Your task to perform on an android device: turn notification dots off Image 0: 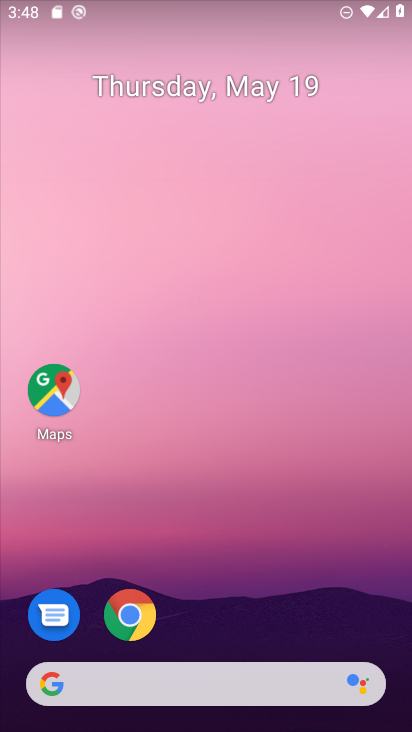
Step 0: drag from (244, 639) to (201, 278)
Your task to perform on an android device: turn notification dots off Image 1: 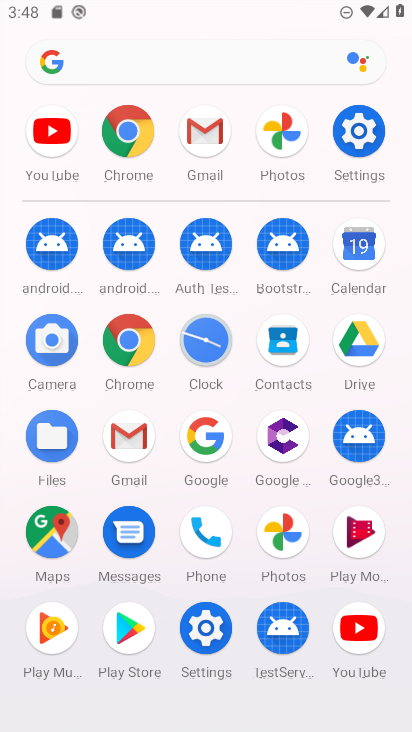
Step 1: click (369, 112)
Your task to perform on an android device: turn notification dots off Image 2: 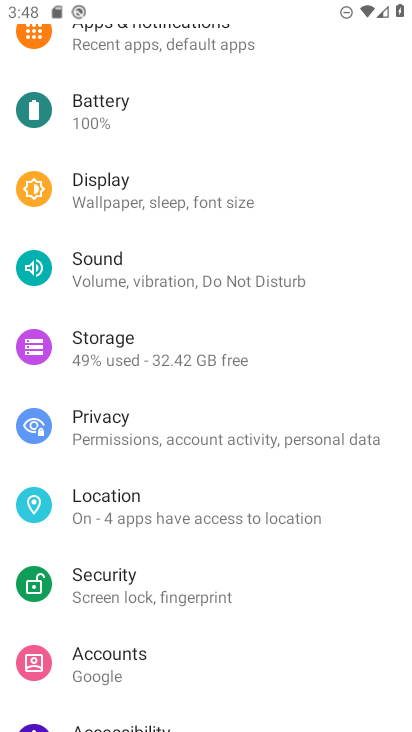
Step 2: drag from (223, 698) to (175, 721)
Your task to perform on an android device: turn notification dots off Image 3: 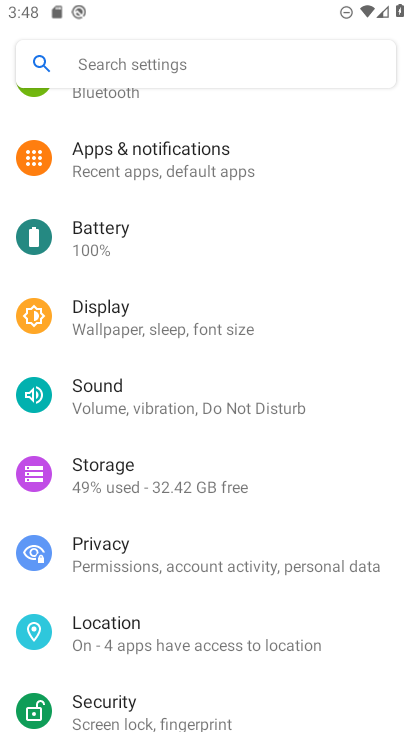
Step 3: click (181, 154)
Your task to perform on an android device: turn notification dots off Image 4: 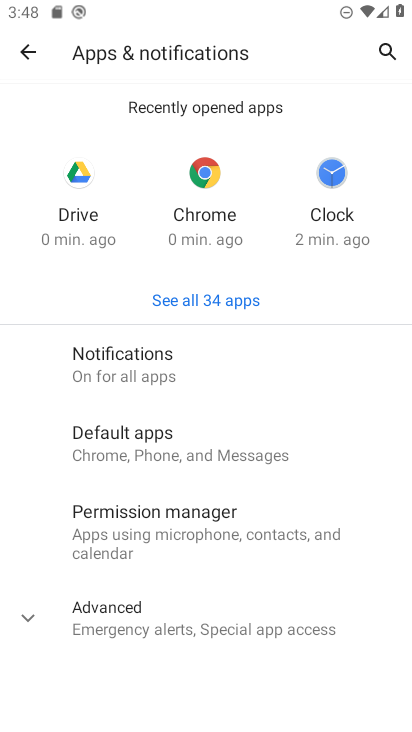
Step 4: click (230, 361)
Your task to perform on an android device: turn notification dots off Image 5: 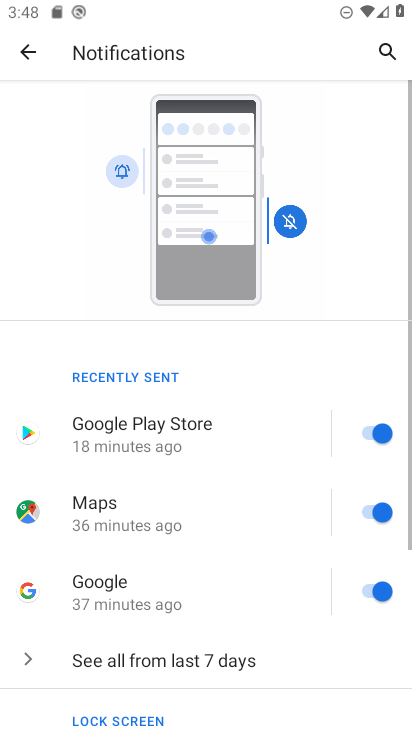
Step 5: drag from (289, 729) to (203, 145)
Your task to perform on an android device: turn notification dots off Image 6: 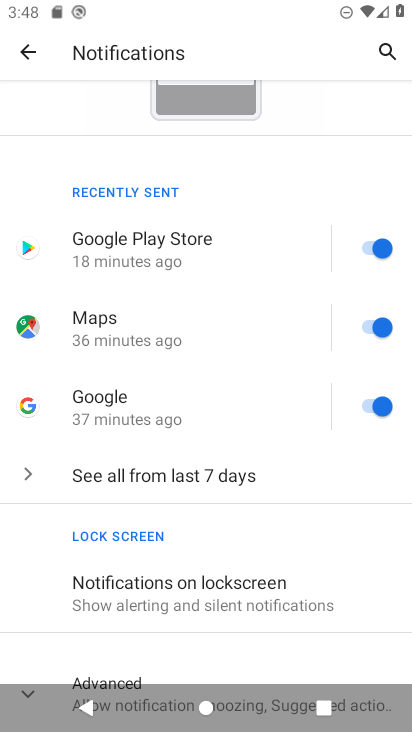
Step 6: drag from (251, 621) to (234, 217)
Your task to perform on an android device: turn notification dots off Image 7: 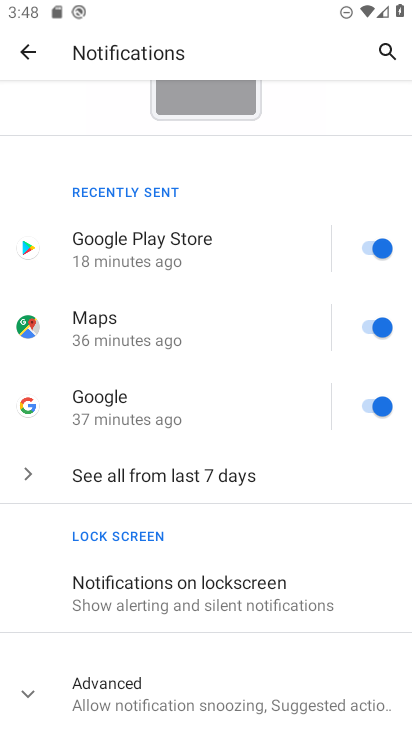
Step 7: click (226, 671)
Your task to perform on an android device: turn notification dots off Image 8: 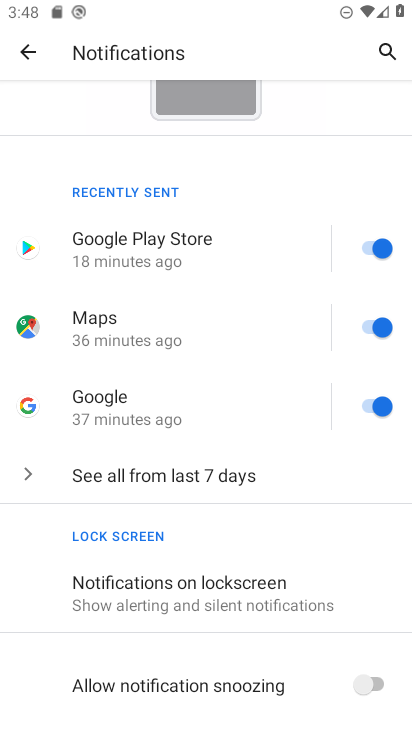
Step 8: task complete